Your task to perform on an android device: open the mobile data screen to see how much data has been used Image 0: 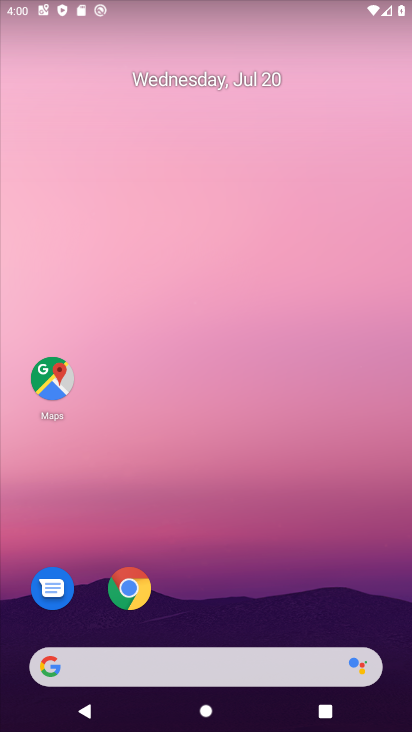
Step 0: drag from (284, 532) to (324, 15)
Your task to perform on an android device: open the mobile data screen to see how much data has been used Image 1: 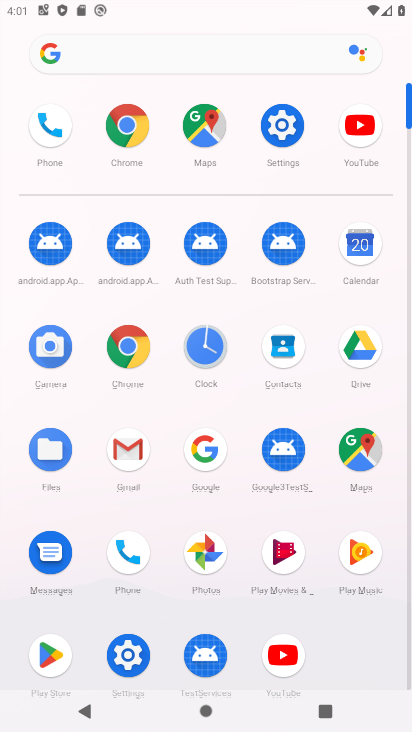
Step 1: click (276, 121)
Your task to perform on an android device: open the mobile data screen to see how much data has been used Image 2: 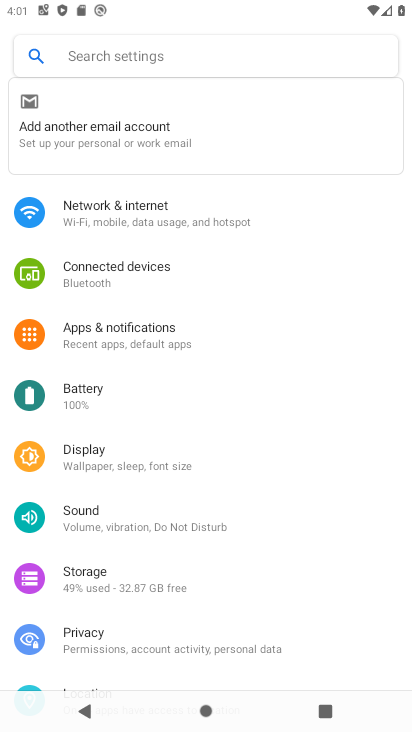
Step 2: click (139, 225)
Your task to perform on an android device: open the mobile data screen to see how much data has been used Image 3: 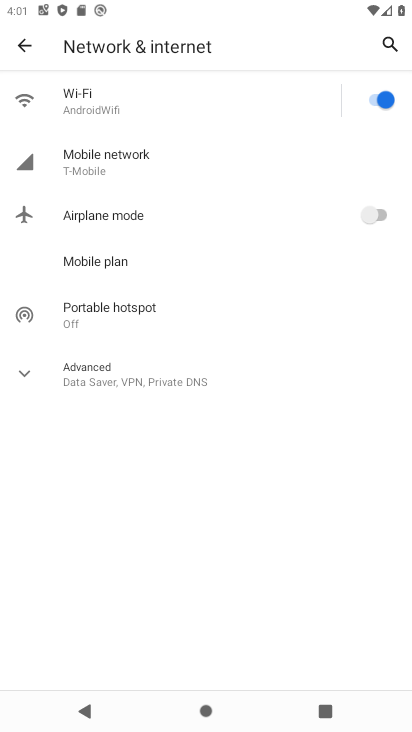
Step 3: click (126, 153)
Your task to perform on an android device: open the mobile data screen to see how much data has been used Image 4: 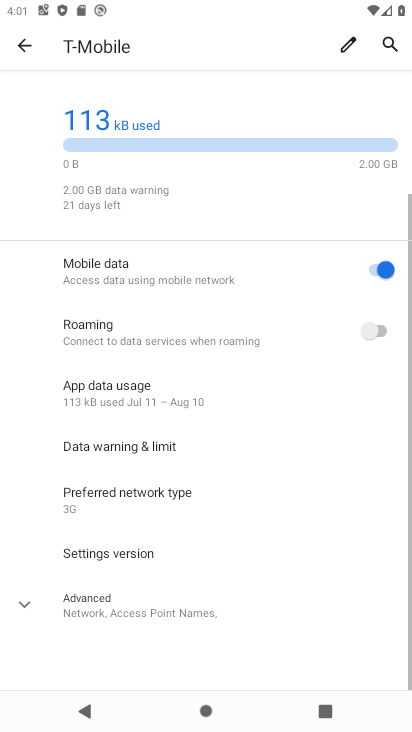
Step 4: task complete